Your task to perform on an android device: What's on my calendar tomorrow? Image 0: 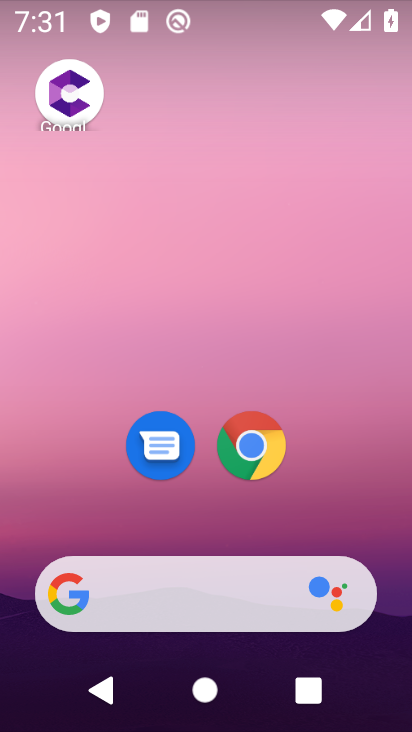
Step 0: drag from (14, 546) to (193, 97)
Your task to perform on an android device: What's on my calendar tomorrow? Image 1: 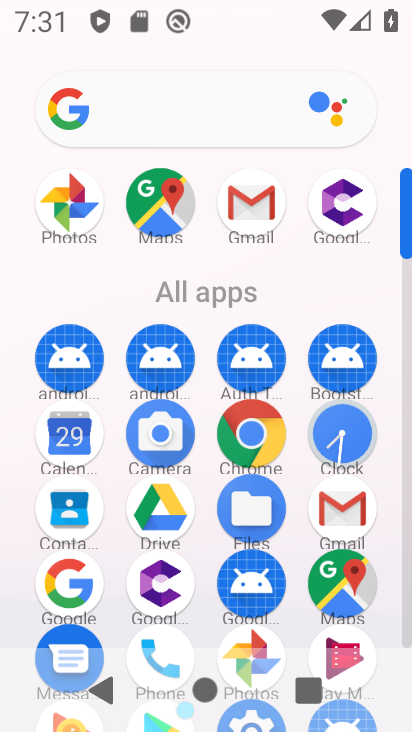
Step 1: click (80, 439)
Your task to perform on an android device: What's on my calendar tomorrow? Image 2: 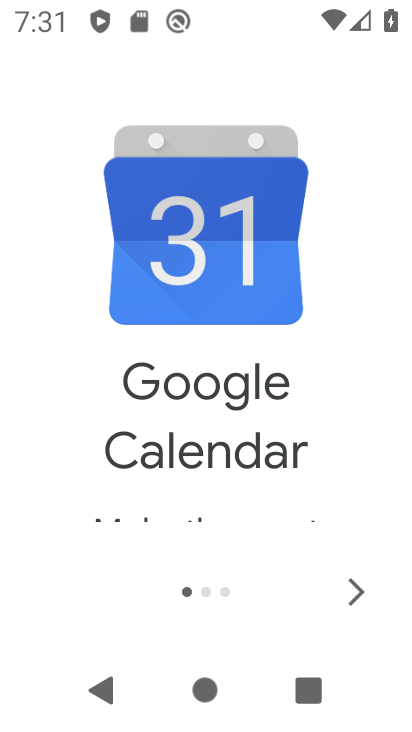
Step 2: click (351, 593)
Your task to perform on an android device: What's on my calendar tomorrow? Image 3: 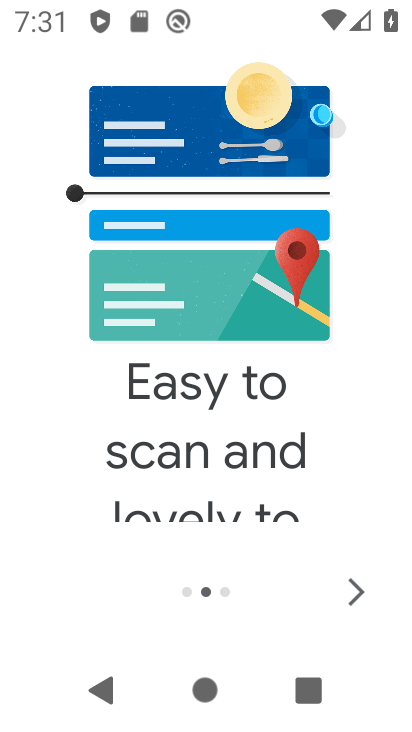
Step 3: click (351, 593)
Your task to perform on an android device: What's on my calendar tomorrow? Image 4: 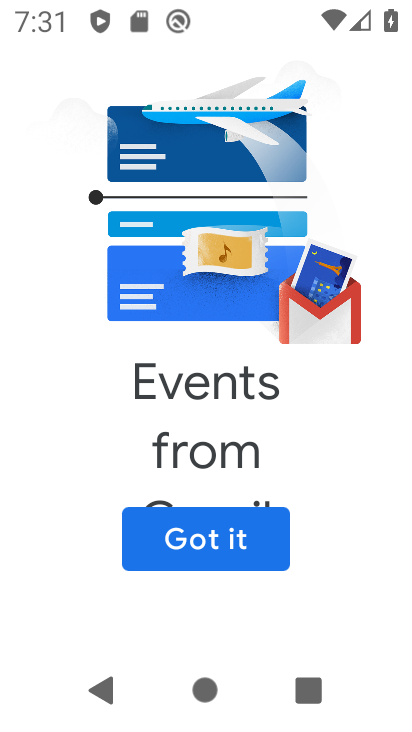
Step 4: click (241, 556)
Your task to perform on an android device: What's on my calendar tomorrow? Image 5: 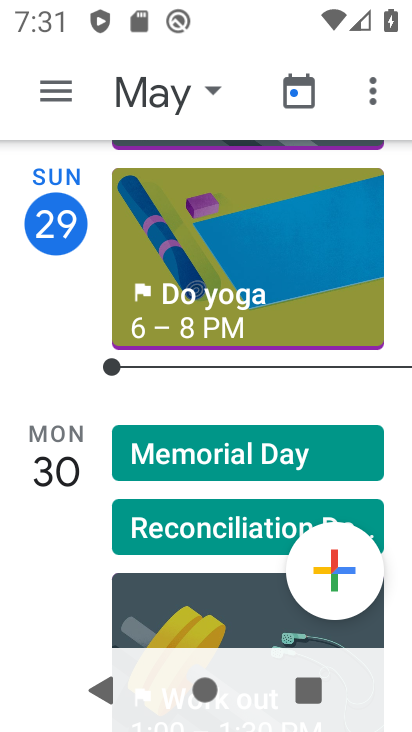
Step 5: click (142, 105)
Your task to perform on an android device: What's on my calendar tomorrow? Image 6: 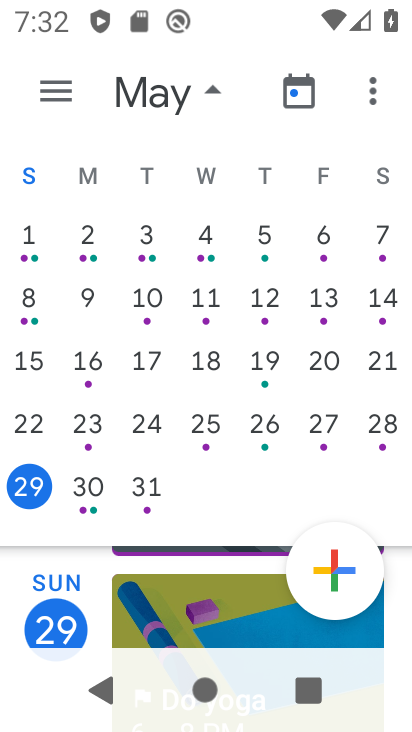
Step 6: click (86, 490)
Your task to perform on an android device: What's on my calendar tomorrow? Image 7: 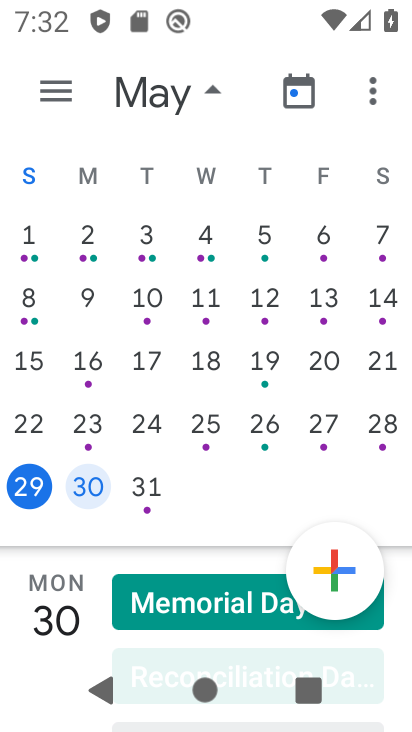
Step 7: task complete